Your task to perform on an android device: allow notifications from all sites in the chrome app Image 0: 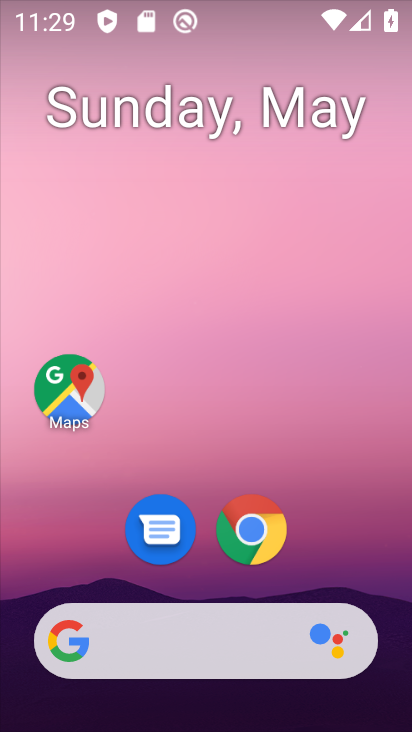
Step 0: drag from (295, 547) to (271, 35)
Your task to perform on an android device: allow notifications from all sites in the chrome app Image 1: 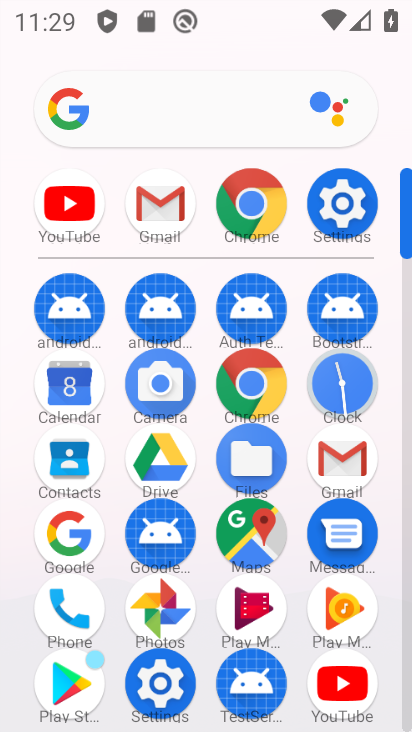
Step 1: click (250, 367)
Your task to perform on an android device: allow notifications from all sites in the chrome app Image 2: 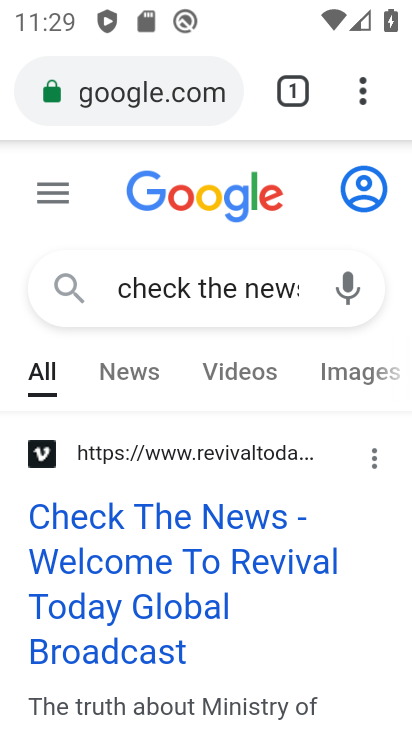
Step 2: drag from (361, 99) to (164, 562)
Your task to perform on an android device: allow notifications from all sites in the chrome app Image 3: 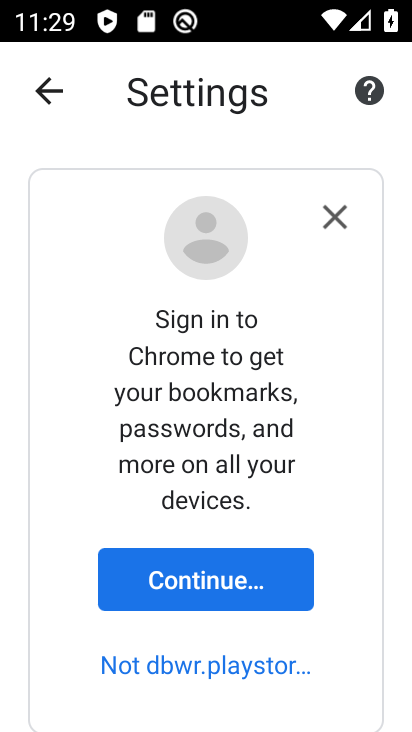
Step 3: drag from (312, 650) to (331, 97)
Your task to perform on an android device: allow notifications from all sites in the chrome app Image 4: 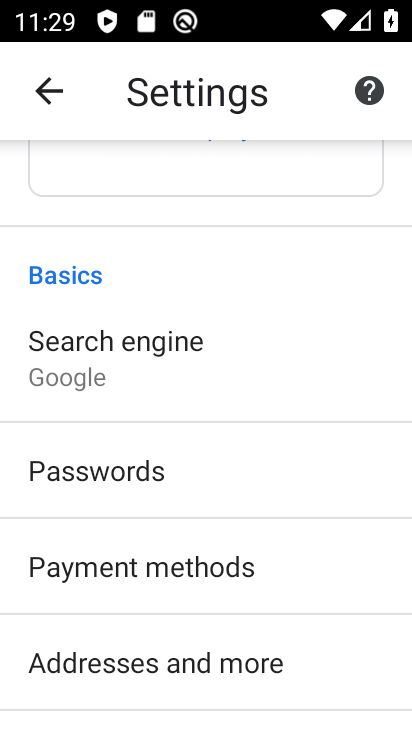
Step 4: drag from (268, 717) to (266, 260)
Your task to perform on an android device: allow notifications from all sites in the chrome app Image 5: 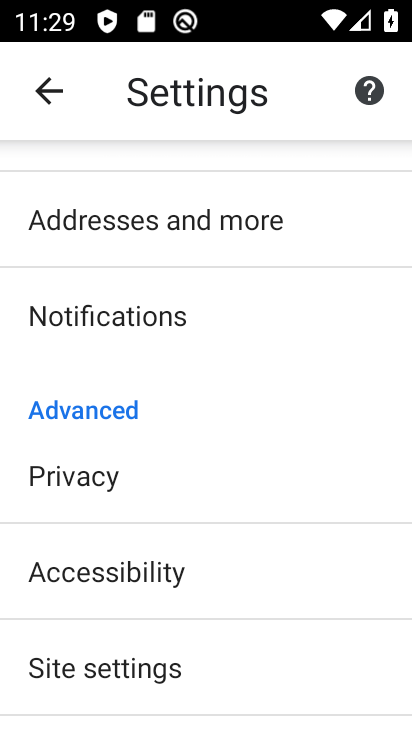
Step 5: drag from (183, 634) to (214, 342)
Your task to perform on an android device: allow notifications from all sites in the chrome app Image 6: 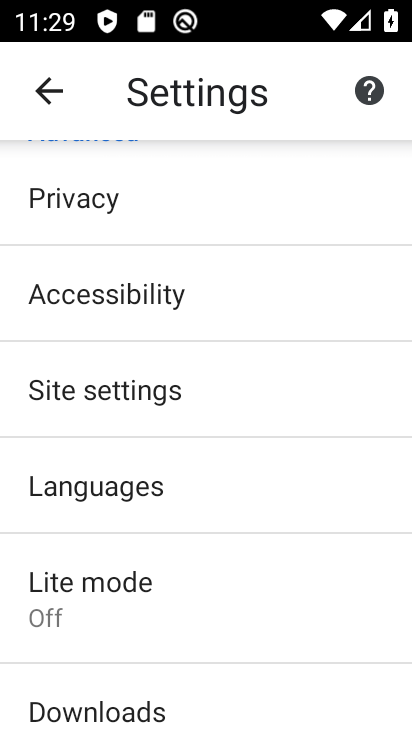
Step 6: click (182, 390)
Your task to perform on an android device: allow notifications from all sites in the chrome app Image 7: 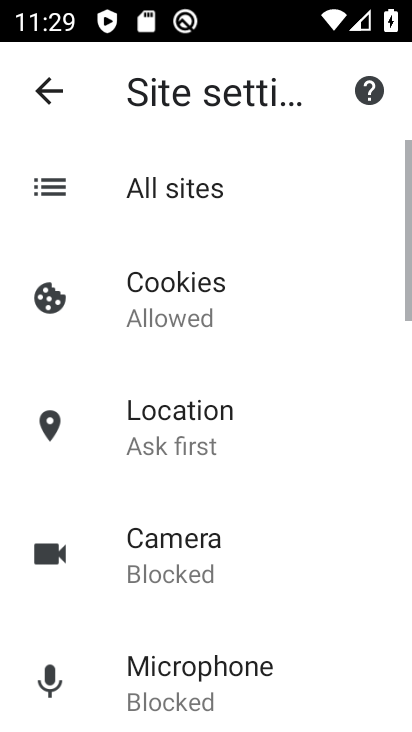
Step 7: drag from (277, 648) to (279, 91)
Your task to perform on an android device: allow notifications from all sites in the chrome app Image 8: 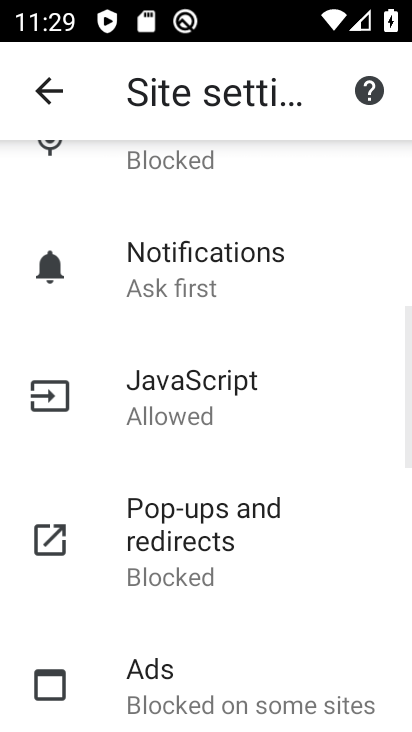
Step 8: click (259, 271)
Your task to perform on an android device: allow notifications from all sites in the chrome app Image 9: 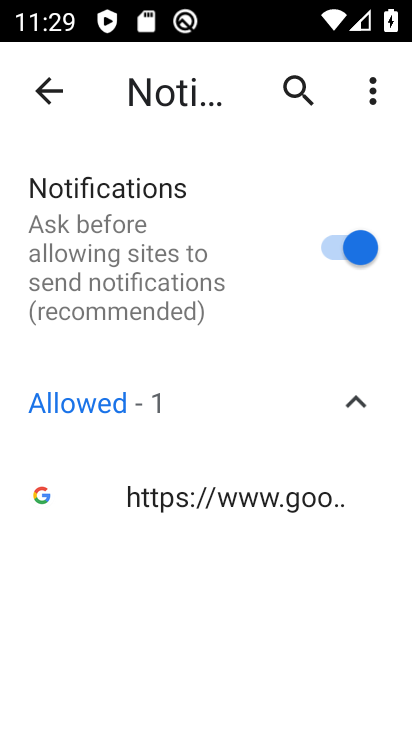
Step 9: click (312, 501)
Your task to perform on an android device: allow notifications from all sites in the chrome app Image 10: 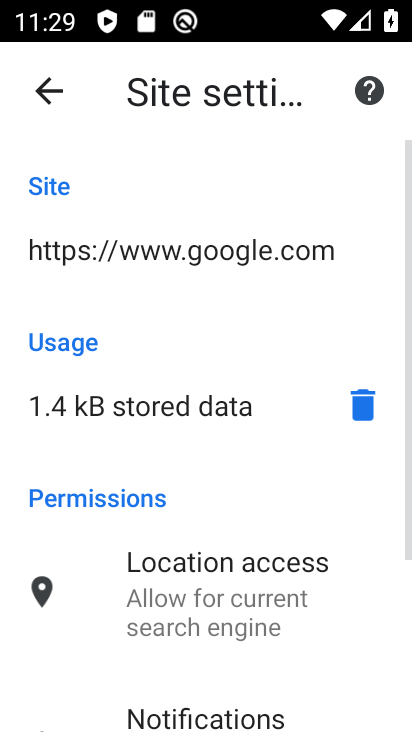
Step 10: task complete